Your task to perform on an android device: turn off improve location accuracy Image 0: 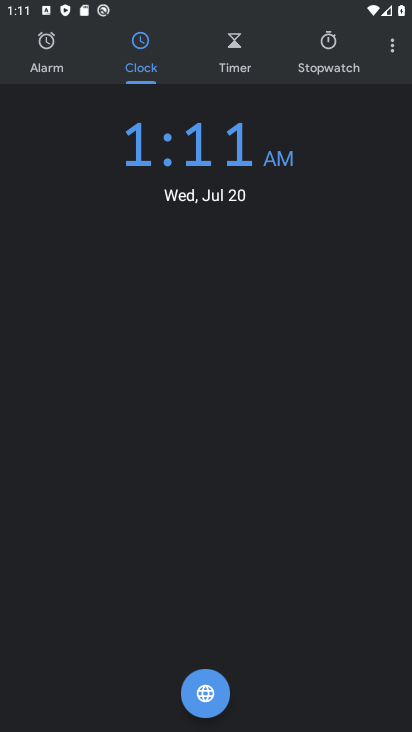
Step 0: press home button
Your task to perform on an android device: turn off improve location accuracy Image 1: 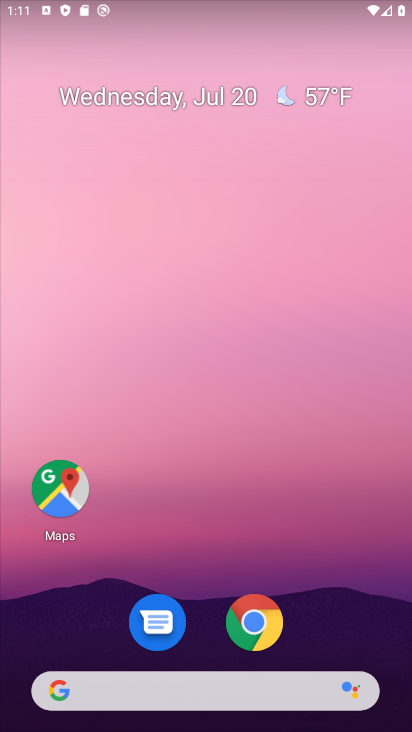
Step 1: drag from (194, 589) to (186, 127)
Your task to perform on an android device: turn off improve location accuracy Image 2: 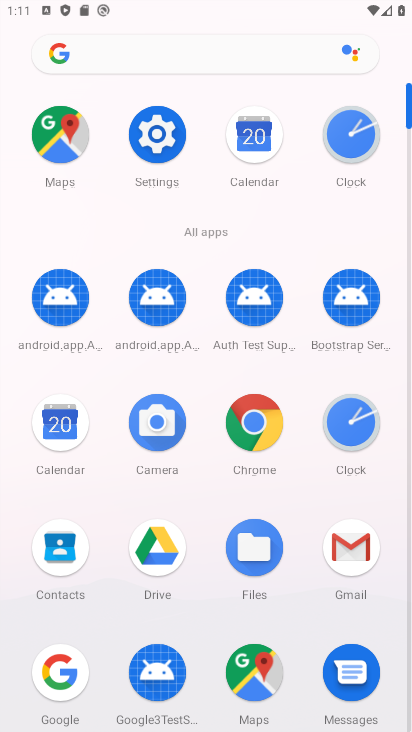
Step 2: click (171, 131)
Your task to perform on an android device: turn off improve location accuracy Image 3: 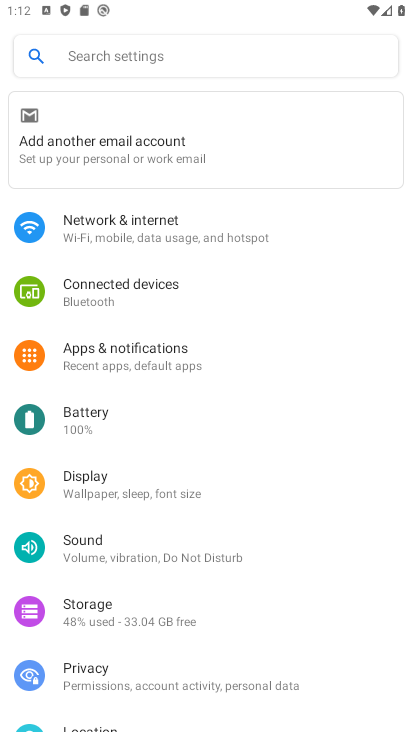
Step 3: drag from (137, 630) to (161, 422)
Your task to perform on an android device: turn off improve location accuracy Image 4: 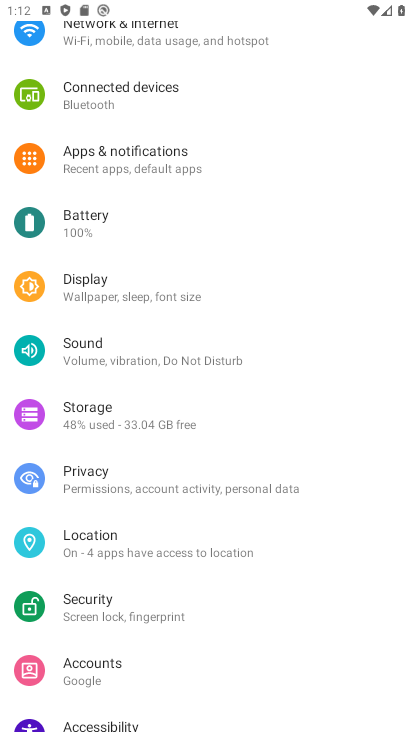
Step 4: click (123, 551)
Your task to perform on an android device: turn off improve location accuracy Image 5: 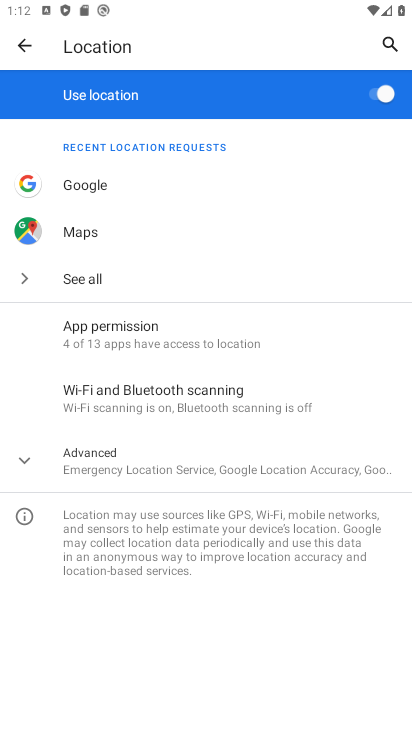
Step 5: click (122, 453)
Your task to perform on an android device: turn off improve location accuracy Image 6: 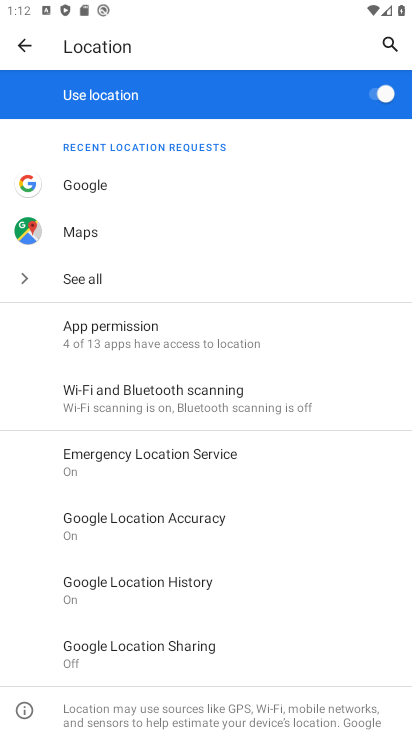
Step 6: click (188, 523)
Your task to perform on an android device: turn off improve location accuracy Image 7: 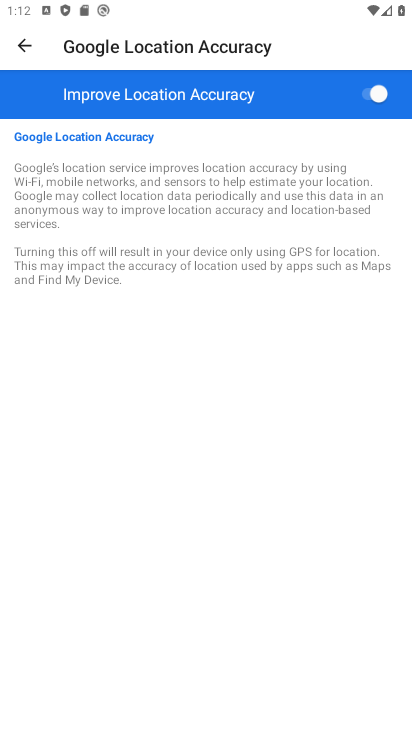
Step 7: click (360, 100)
Your task to perform on an android device: turn off improve location accuracy Image 8: 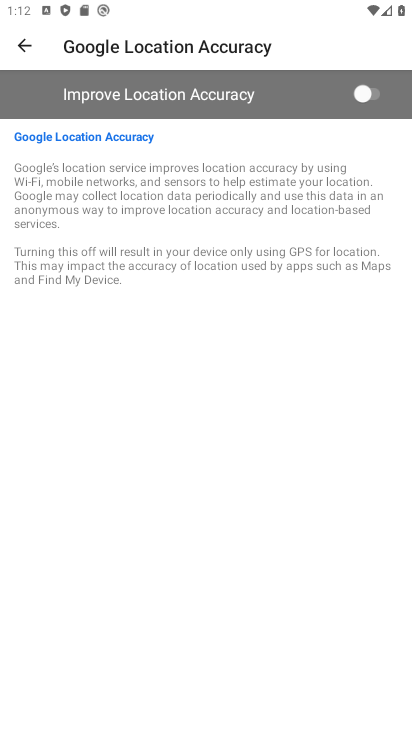
Step 8: task complete